Your task to perform on an android device: clear all cookies in the chrome app Image 0: 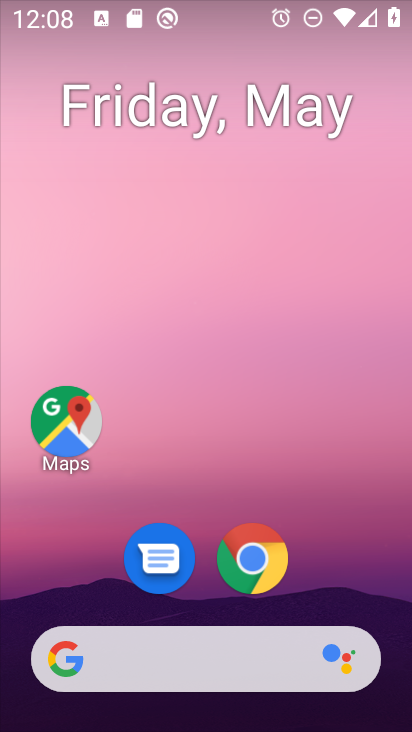
Step 0: click (253, 559)
Your task to perform on an android device: clear all cookies in the chrome app Image 1: 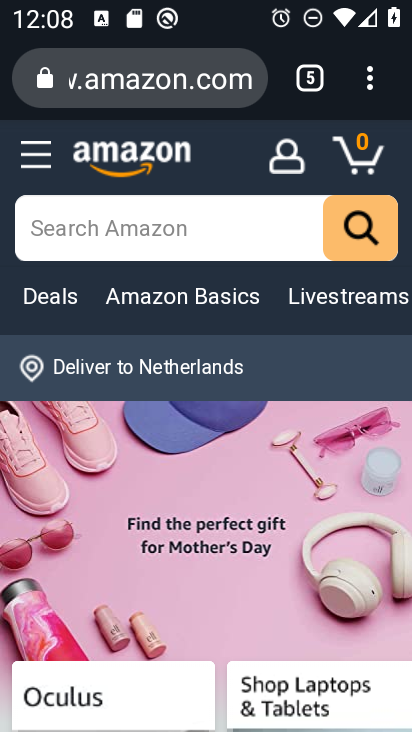
Step 1: click (367, 82)
Your task to perform on an android device: clear all cookies in the chrome app Image 2: 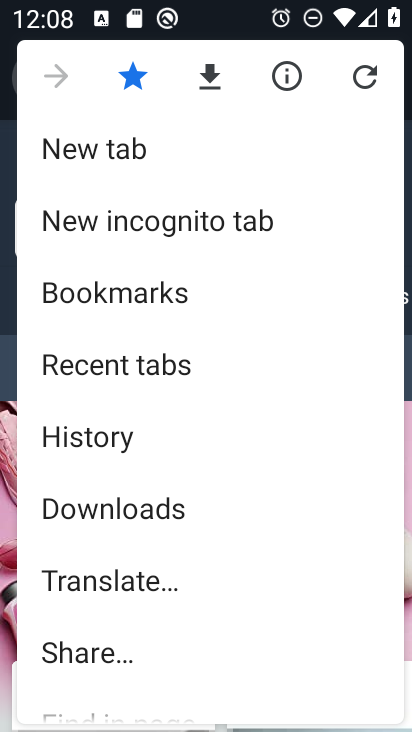
Step 2: click (106, 439)
Your task to perform on an android device: clear all cookies in the chrome app Image 3: 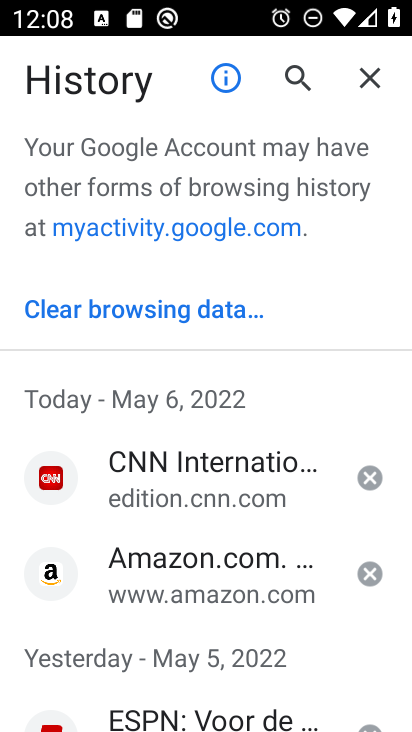
Step 3: click (126, 305)
Your task to perform on an android device: clear all cookies in the chrome app Image 4: 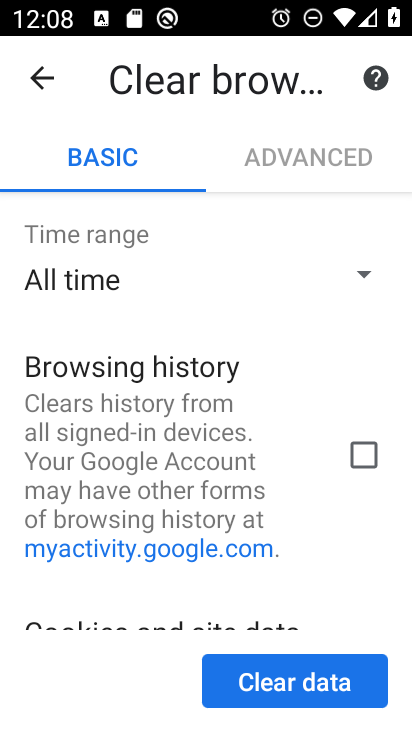
Step 4: drag from (270, 583) to (286, 194)
Your task to perform on an android device: clear all cookies in the chrome app Image 5: 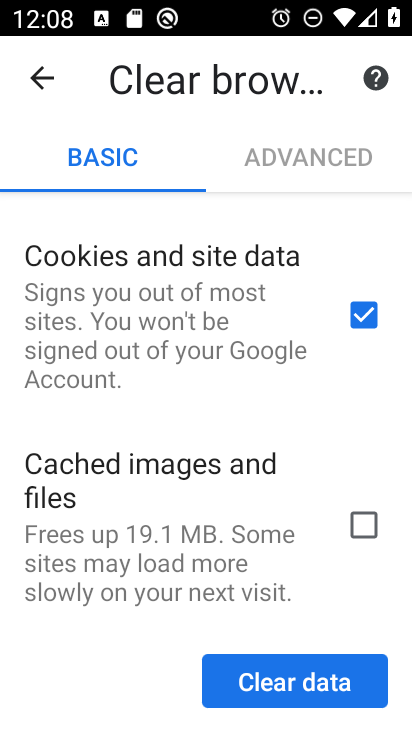
Step 5: click (314, 680)
Your task to perform on an android device: clear all cookies in the chrome app Image 6: 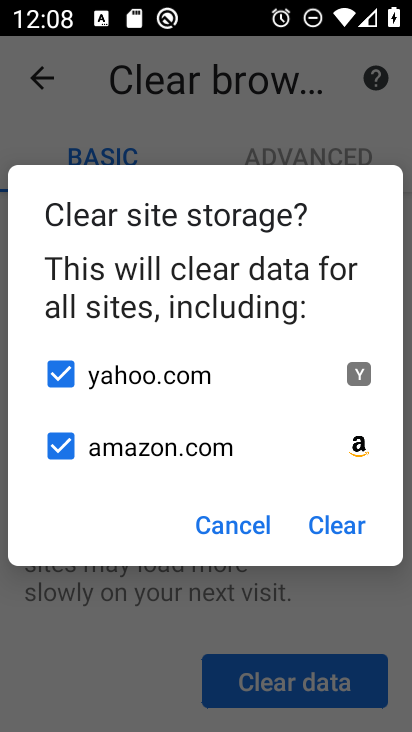
Step 6: click (336, 521)
Your task to perform on an android device: clear all cookies in the chrome app Image 7: 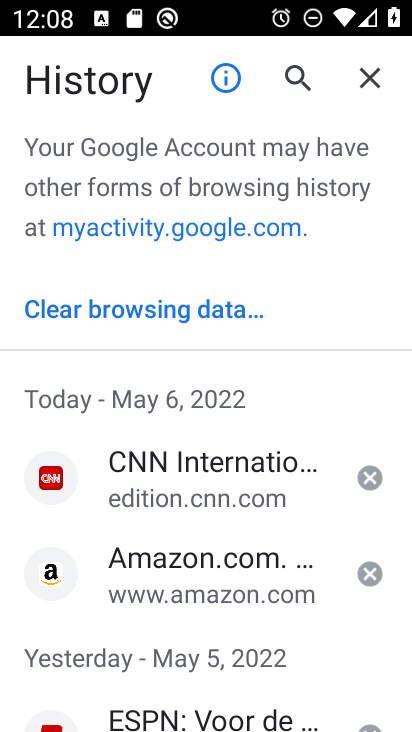
Step 7: task complete